Your task to perform on an android device: turn on bluetooth scan Image 0: 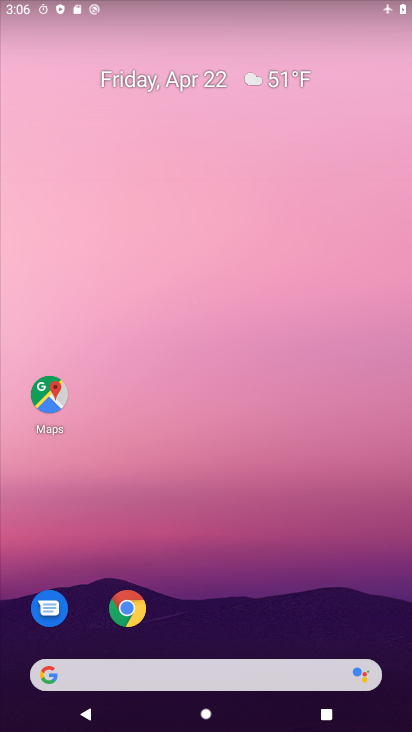
Step 0: drag from (247, 586) to (246, 54)
Your task to perform on an android device: turn on bluetooth scan Image 1: 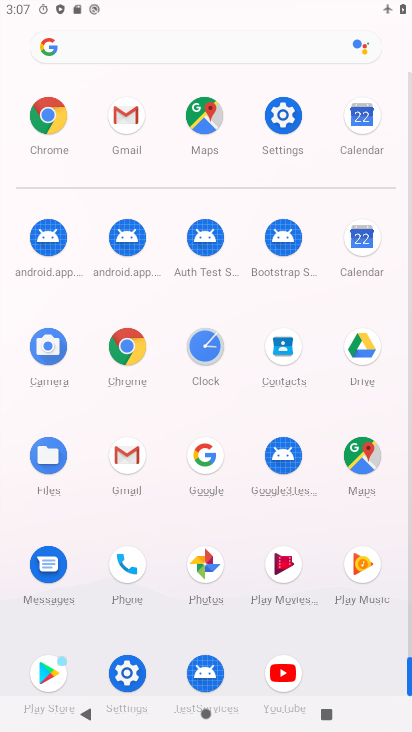
Step 1: click (279, 115)
Your task to perform on an android device: turn on bluetooth scan Image 2: 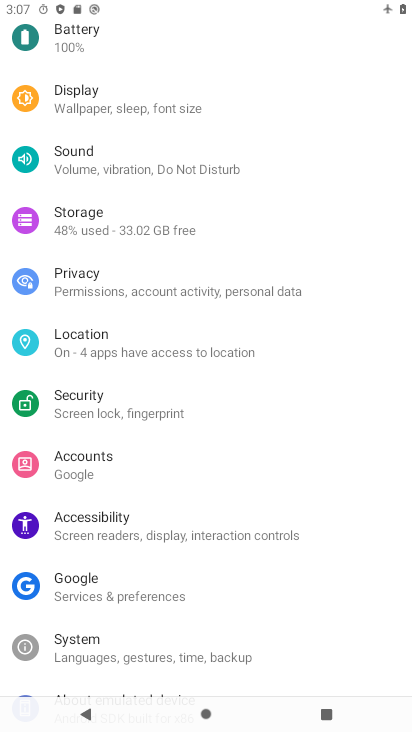
Step 2: click (136, 350)
Your task to perform on an android device: turn on bluetooth scan Image 3: 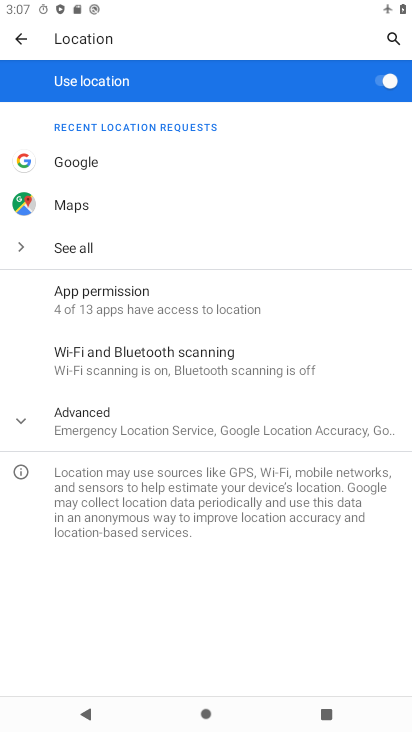
Step 3: click (149, 368)
Your task to perform on an android device: turn on bluetooth scan Image 4: 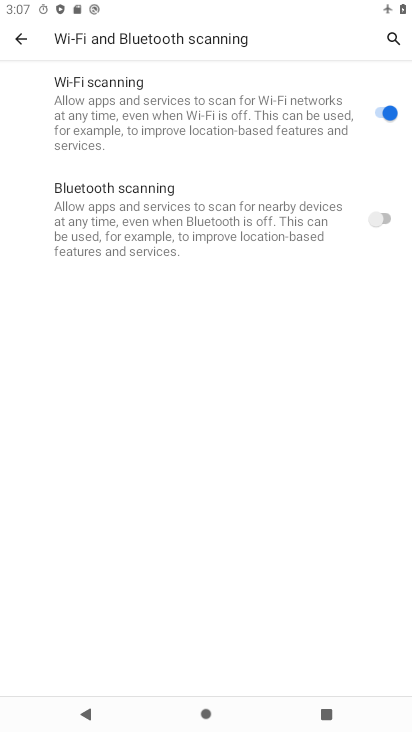
Step 4: click (385, 218)
Your task to perform on an android device: turn on bluetooth scan Image 5: 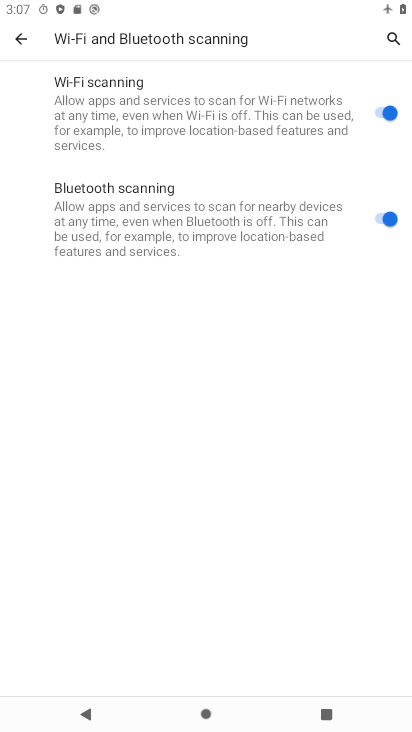
Step 5: task complete